Your task to perform on an android device: change the upload size in google photos Image 0: 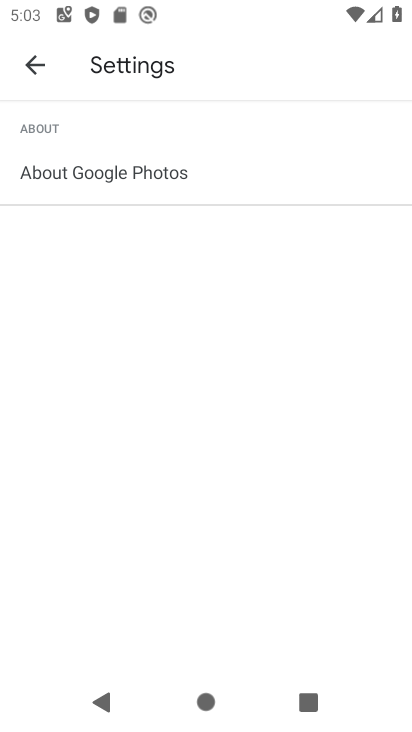
Step 0: click (34, 72)
Your task to perform on an android device: change the upload size in google photos Image 1: 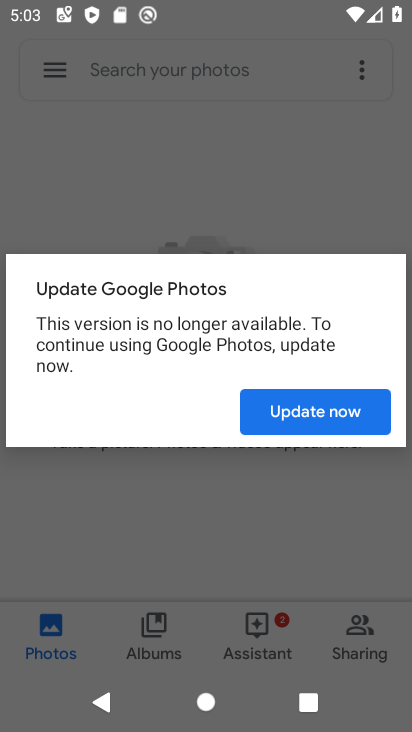
Step 1: click (303, 417)
Your task to perform on an android device: change the upload size in google photos Image 2: 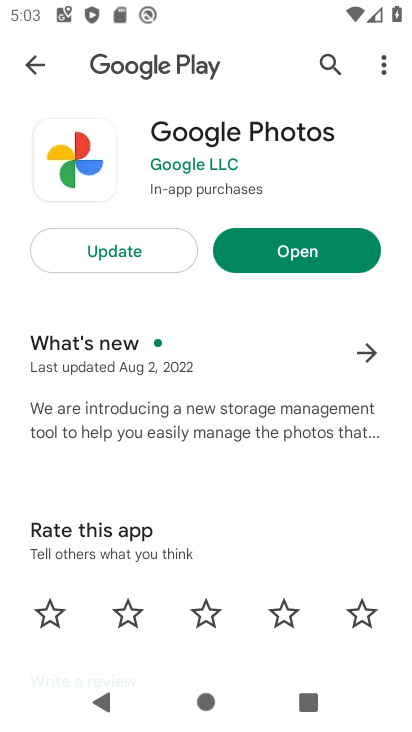
Step 2: click (312, 243)
Your task to perform on an android device: change the upload size in google photos Image 3: 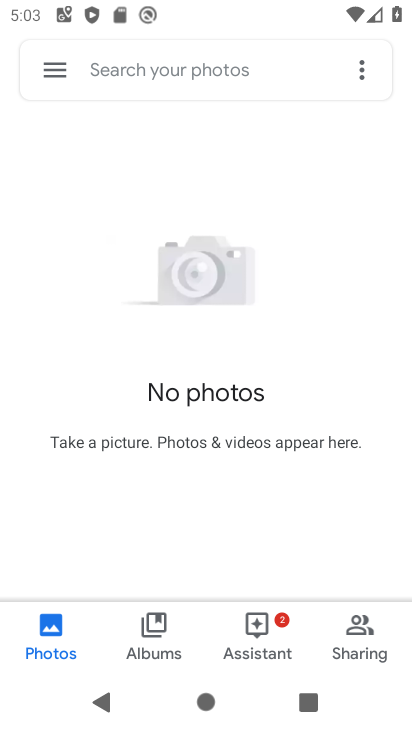
Step 3: click (47, 72)
Your task to perform on an android device: change the upload size in google photos Image 4: 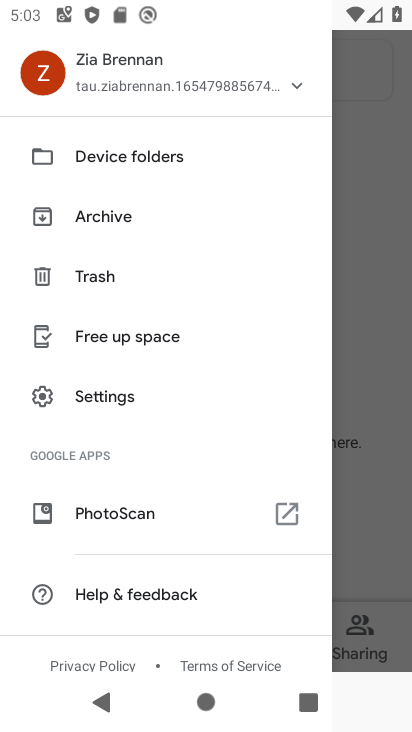
Step 4: click (141, 332)
Your task to perform on an android device: change the upload size in google photos Image 5: 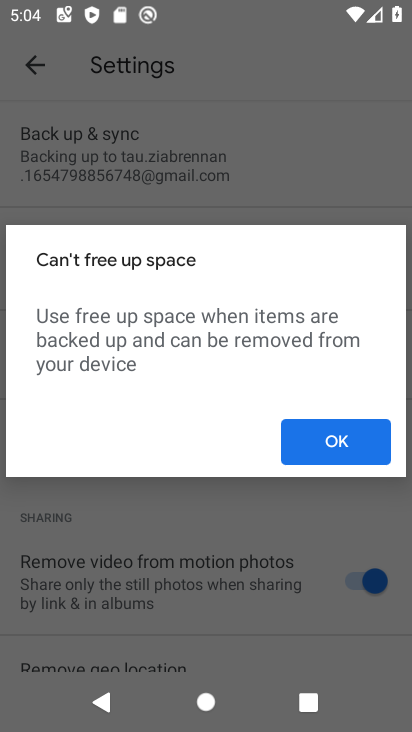
Step 5: click (322, 459)
Your task to perform on an android device: change the upload size in google photos Image 6: 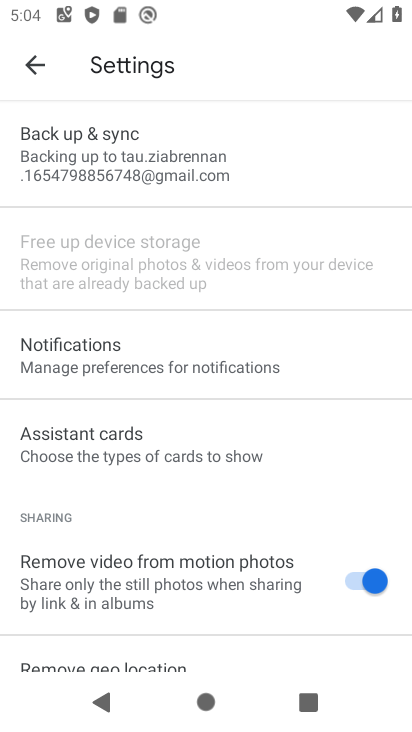
Step 6: click (172, 183)
Your task to perform on an android device: change the upload size in google photos Image 7: 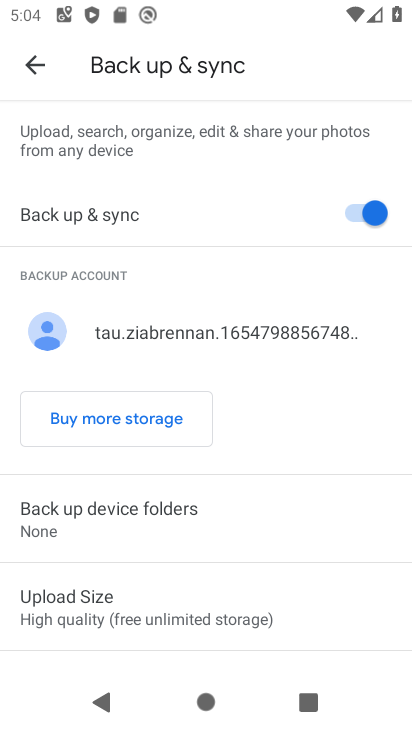
Step 7: click (122, 584)
Your task to perform on an android device: change the upload size in google photos Image 8: 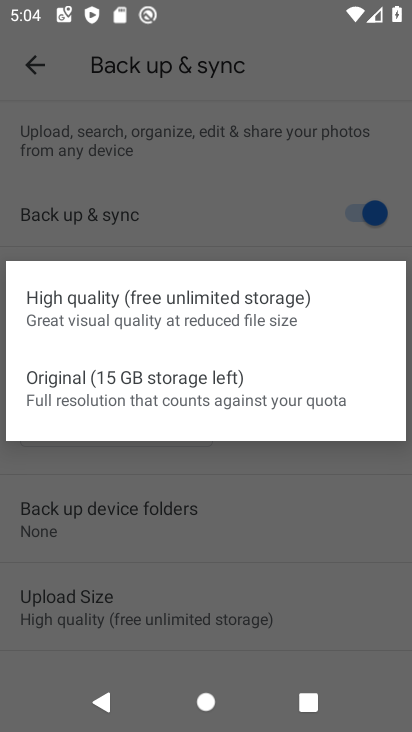
Step 8: click (122, 584)
Your task to perform on an android device: change the upload size in google photos Image 9: 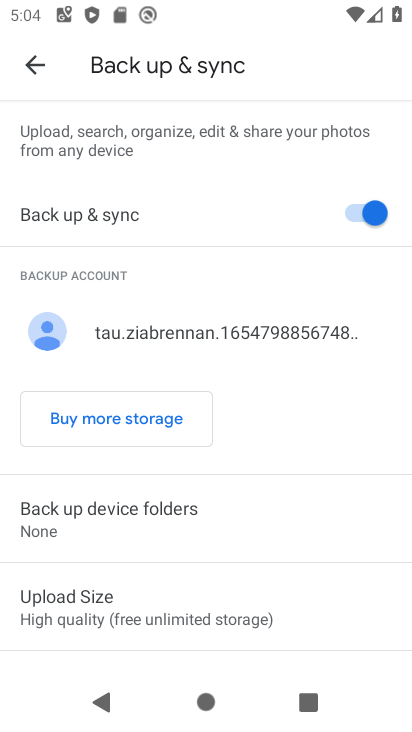
Step 9: click (146, 626)
Your task to perform on an android device: change the upload size in google photos Image 10: 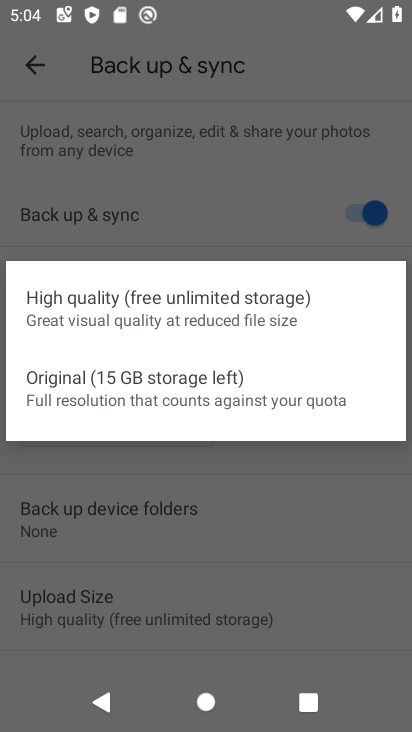
Step 10: click (186, 404)
Your task to perform on an android device: change the upload size in google photos Image 11: 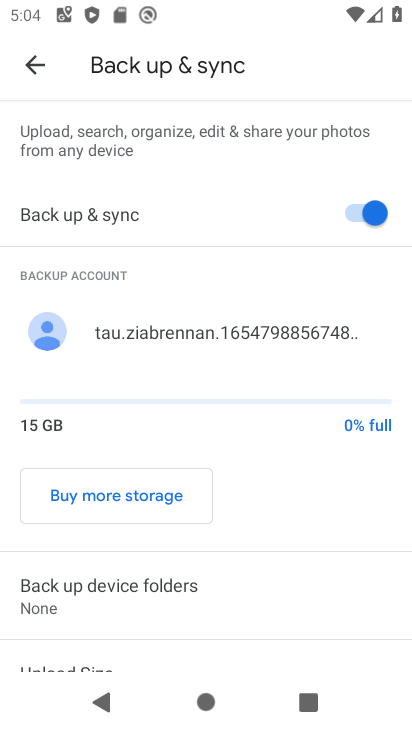
Step 11: task complete